Your task to perform on an android device: Go to battery settings Image 0: 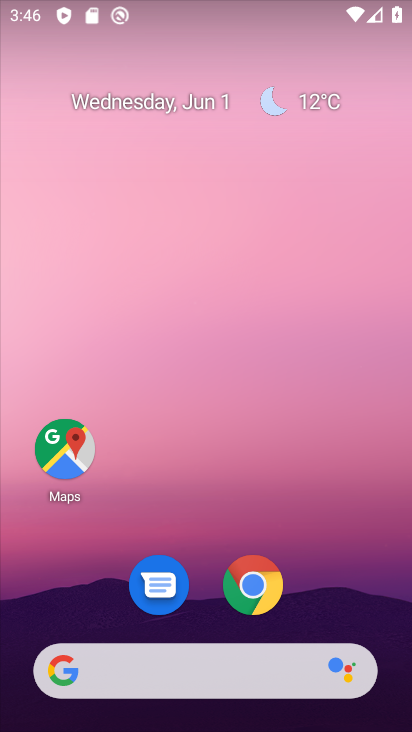
Step 0: drag from (323, 563) to (292, 30)
Your task to perform on an android device: Go to battery settings Image 1: 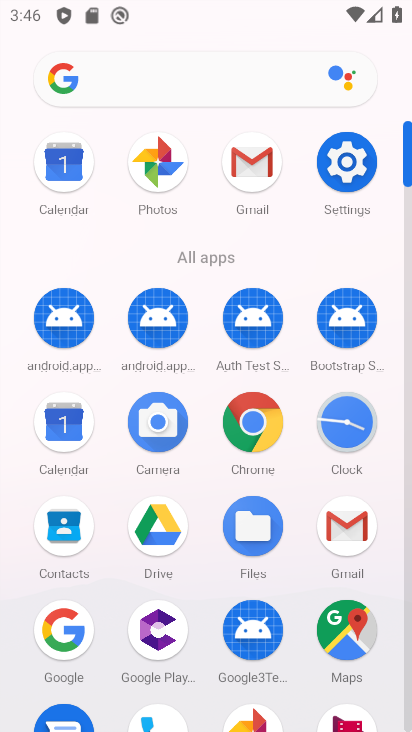
Step 1: click (346, 158)
Your task to perform on an android device: Go to battery settings Image 2: 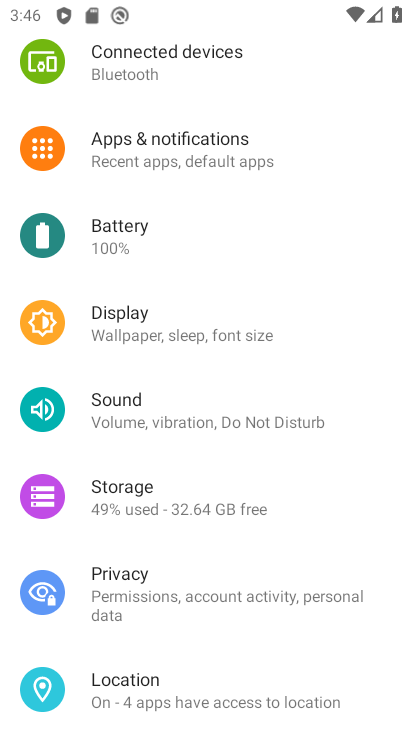
Step 2: click (175, 248)
Your task to perform on an android device: Go to battery settings Image 3: 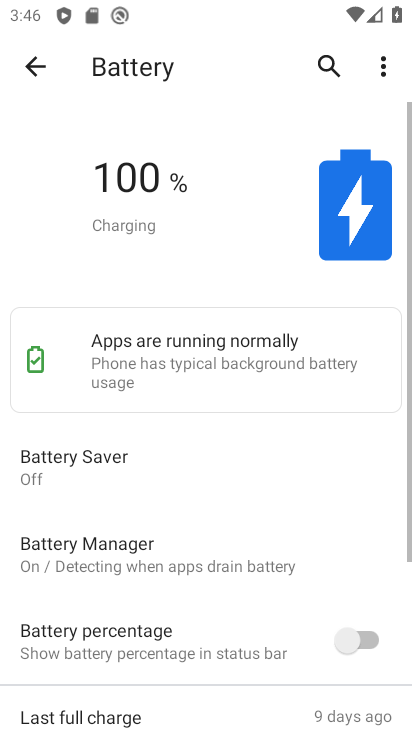
Step 3: task complete